Your task to perform on an android device: Open Chrome and go to settings Image 0: 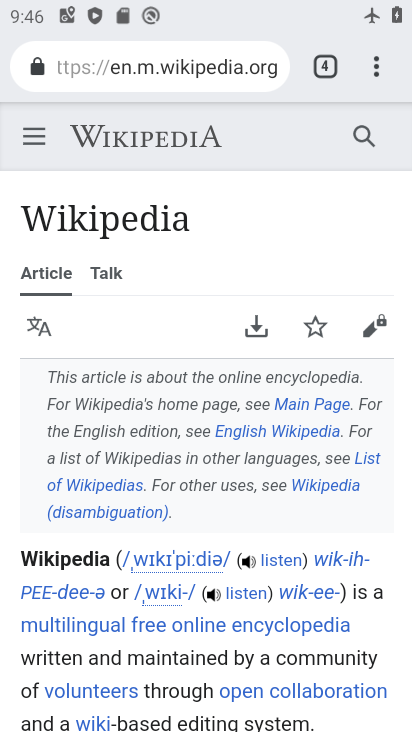
Step 0: click (374, 65)
Your task to perform on an android device: Open Chrome and go to settings Image 1: 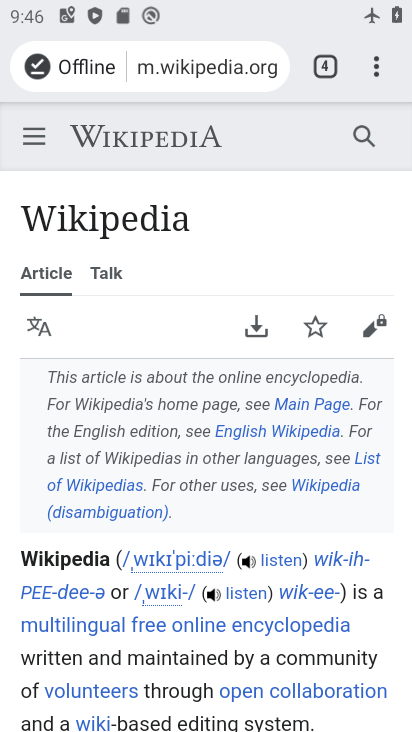
Step 1: click (374, 65)
Your task to perform on an android device: Open Chrome and go to settings Image 2: 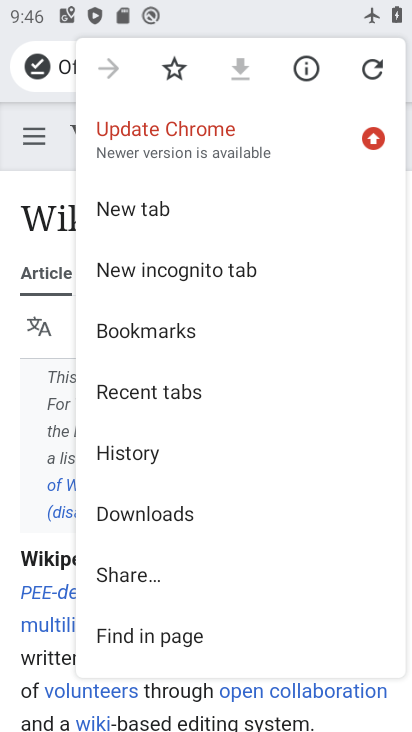
Step 2: drag from (277, 526) to (293, 170)
Your task to perform on an android device: Open Chrome and go to settings Image 3: 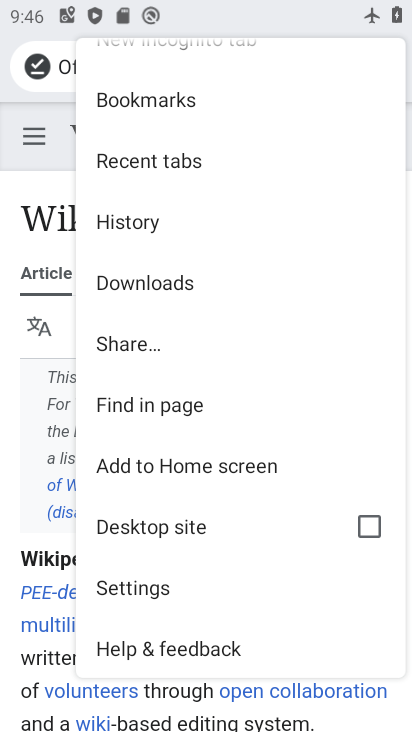
Step 3: click (172, 591)
Your task to perform on an android device: Open Chrome and go to settings Image 4: 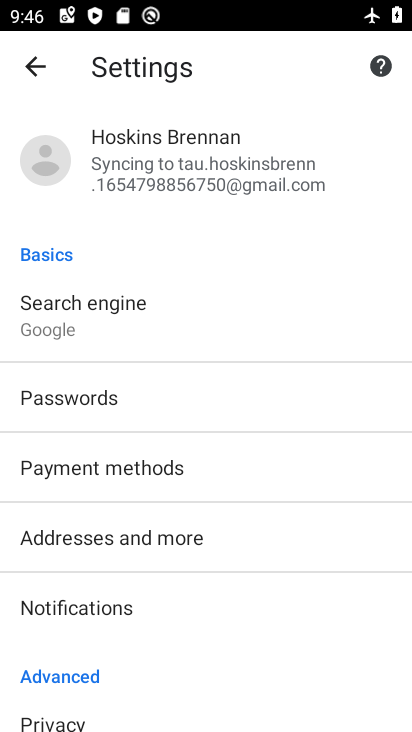
Step 4: task complete